Your task to perform on an android device: Open Amazon Image 0: 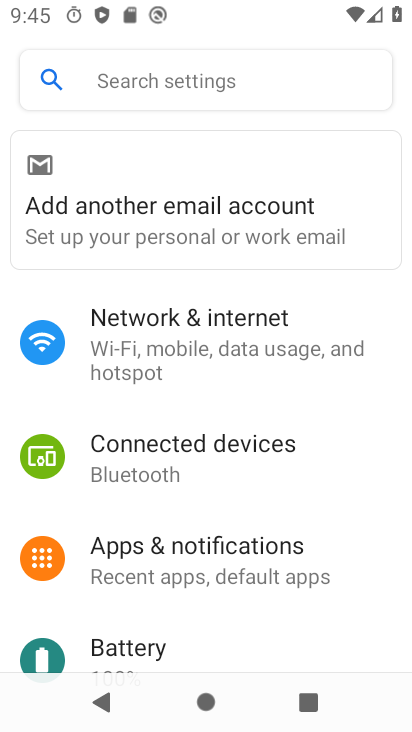
Step 0: press home button
Your task to perform on an android device: Open Amazon Image 1: 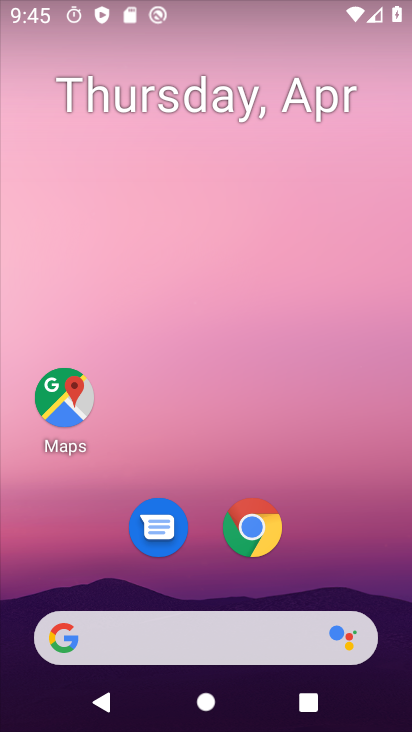
Step 1: drag from (168, 637) to (310, 0)
Your task to perform on an android device: Open Amazon Image 2: 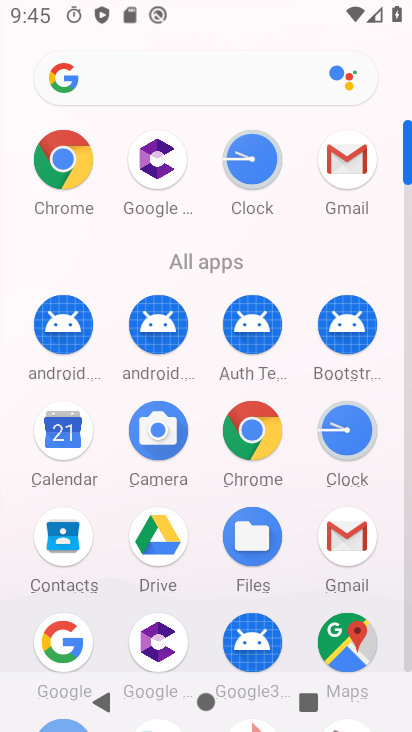
Step 2: click (59, 168)
Your task to perform on an android device: Open Amazon Image 3: 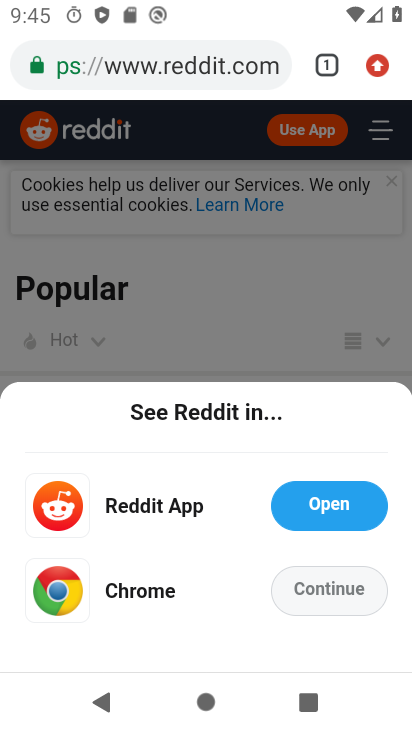
Step 3: click (375, 83)
Your task to perform on an android device: Open Amazon Image 4: 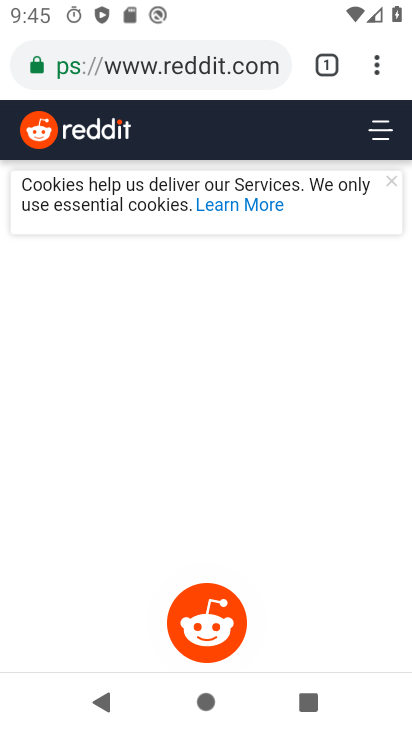
Step 4: click (367, 76)
Your task to perform on an android device: Open Amazon Image 5: 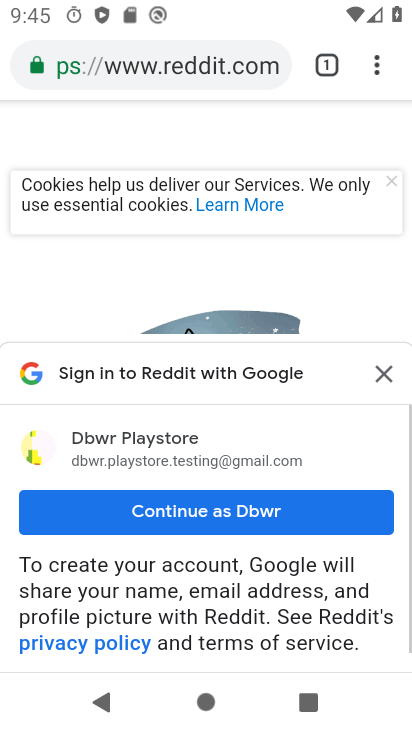
Step 5: click (364, 80)
Your task to perform on an android device: Open Amazon Image 6: 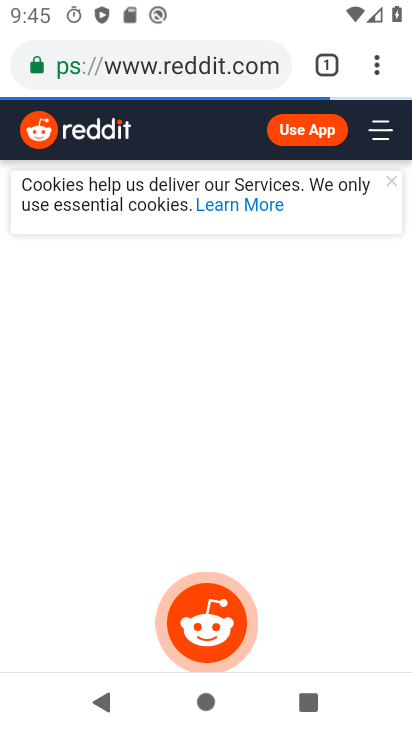
Step 6: click (364, 80)
Your task to perform on an android device: Open Amazon Image 7: 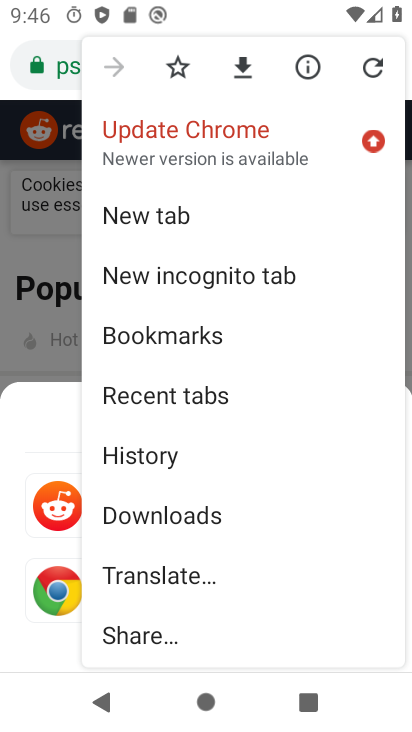
Step 7: click (158, 213)
Your task to perform on an android device: Open Amazon Image 8: 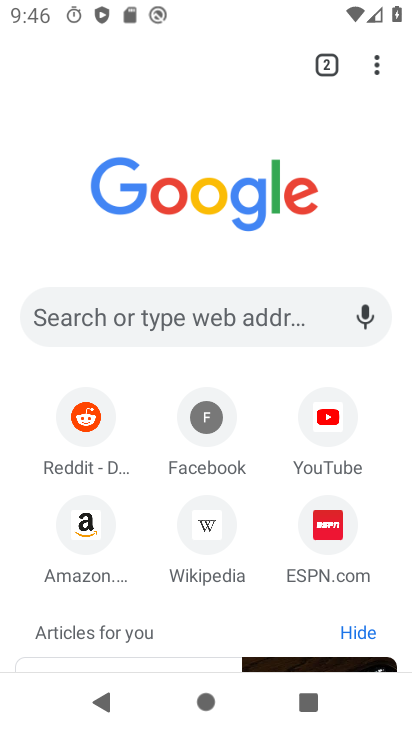
Step 8: click (90, 529)
Your task to perform on an android device: Open Amazon Image 9: 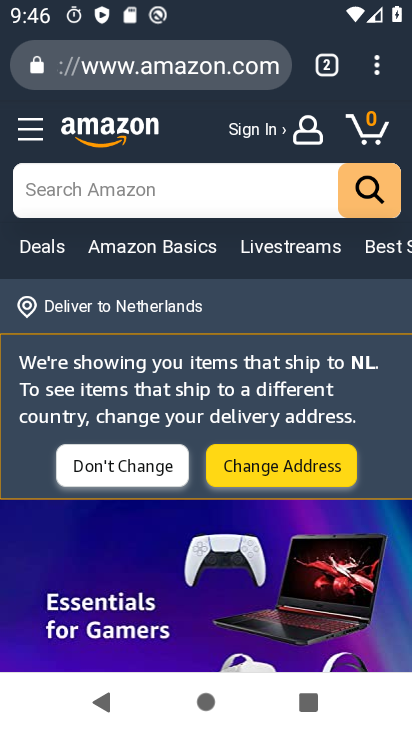
Step 9: task complete